Your task to perform on an android device: Look up the best selling books on Goodreads. Image 0: 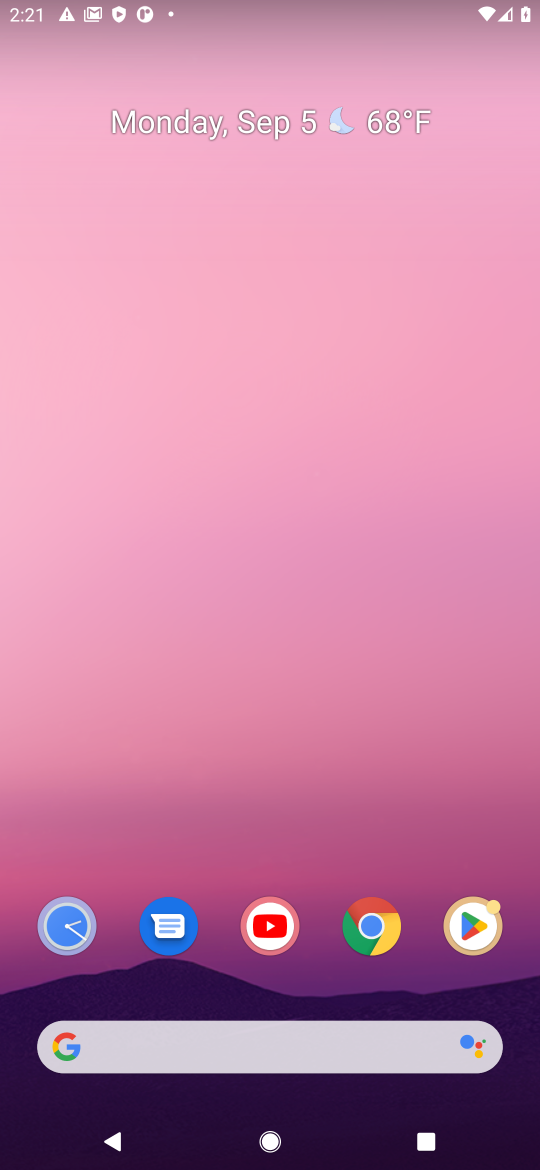
Step 0: click (381, 937)
Your task to perform on an android device: Look up the best selling books on Goodreads. Image 1: 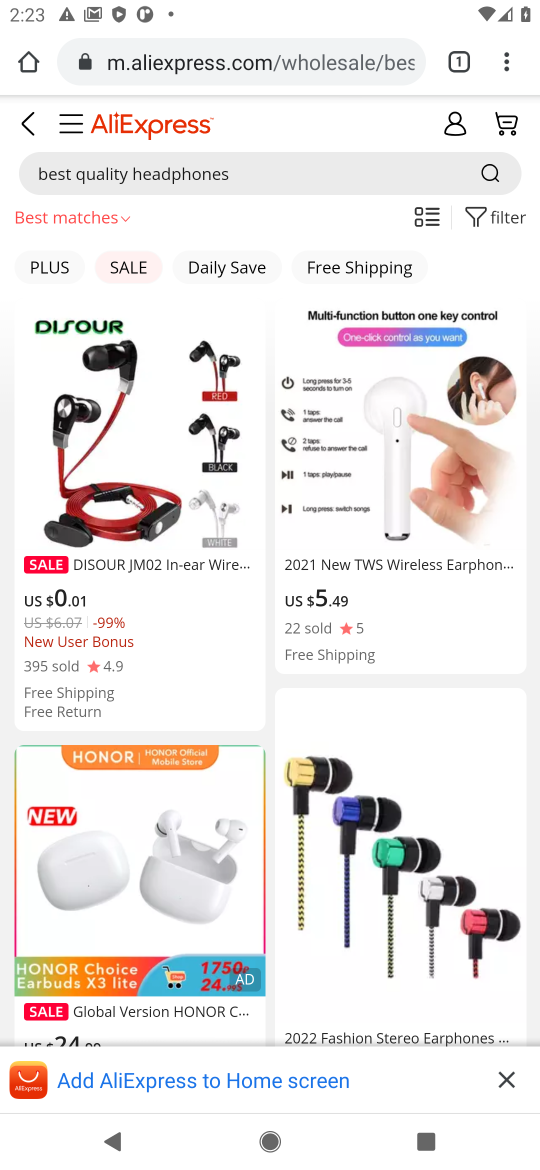
Step 1: press home button
Your task to perform on an android device: Look up the best selling books on Goodreads. Image 2: 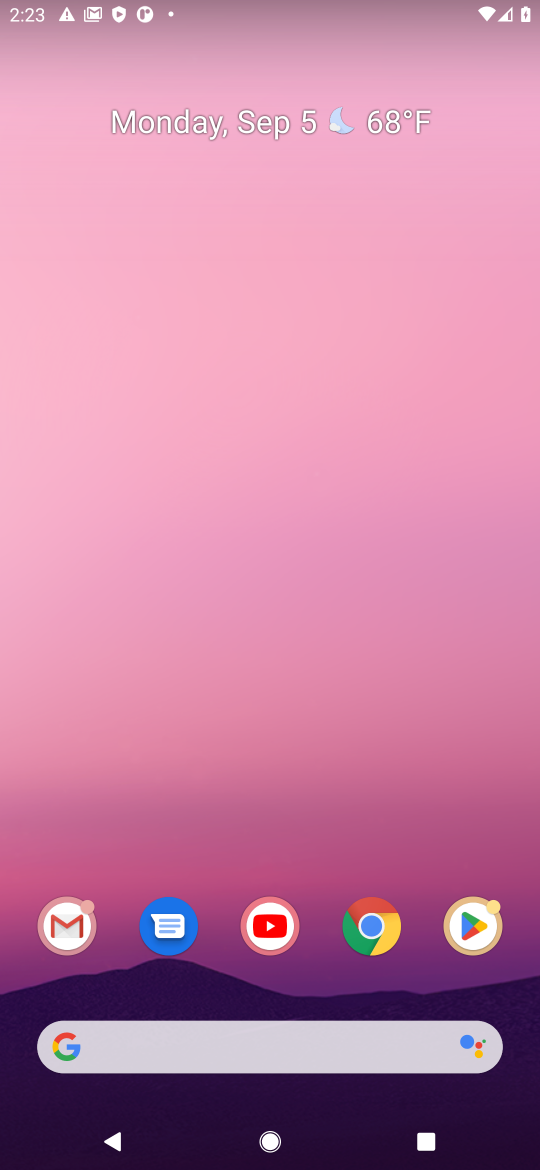
Step 2: click (370, 922)
Your task to perform on an android device: Look up the best selling books on Goodreads. Image 3: 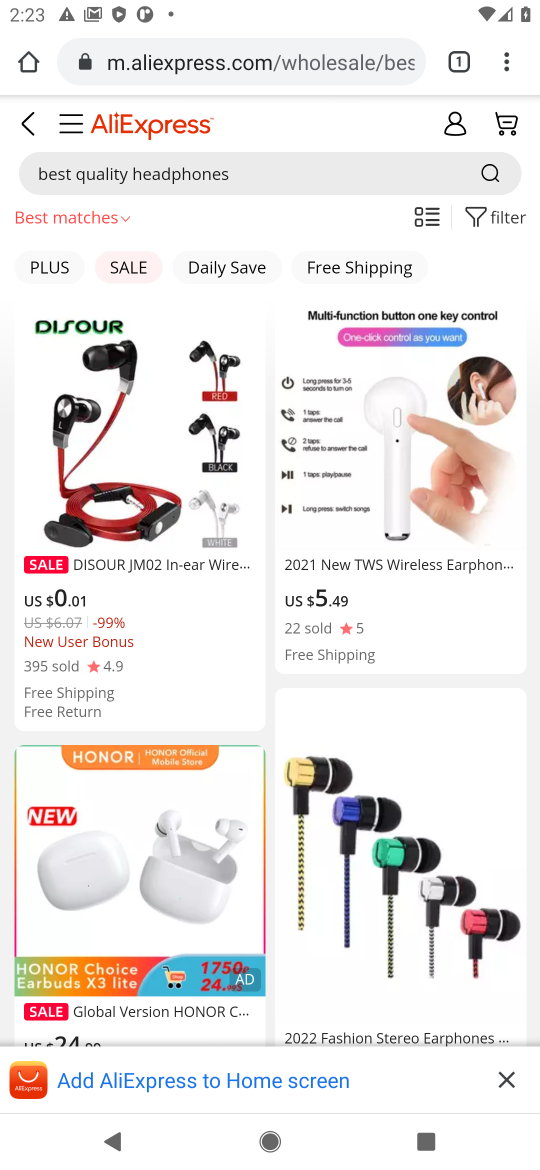
Step 3: click (281, 72)
Your task to perform on an android device: Look up the best selling books on Goodreads. Image 4: 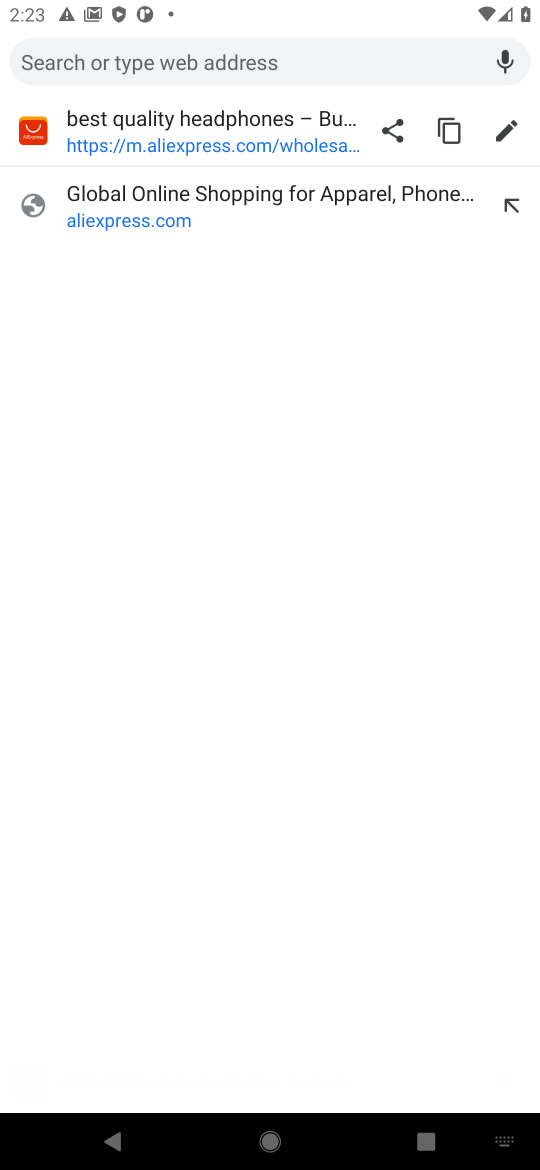
Step 4: type "goodreads"
Your task to perform on an android device: Look up the best selling books on Goodreads. Image 5: 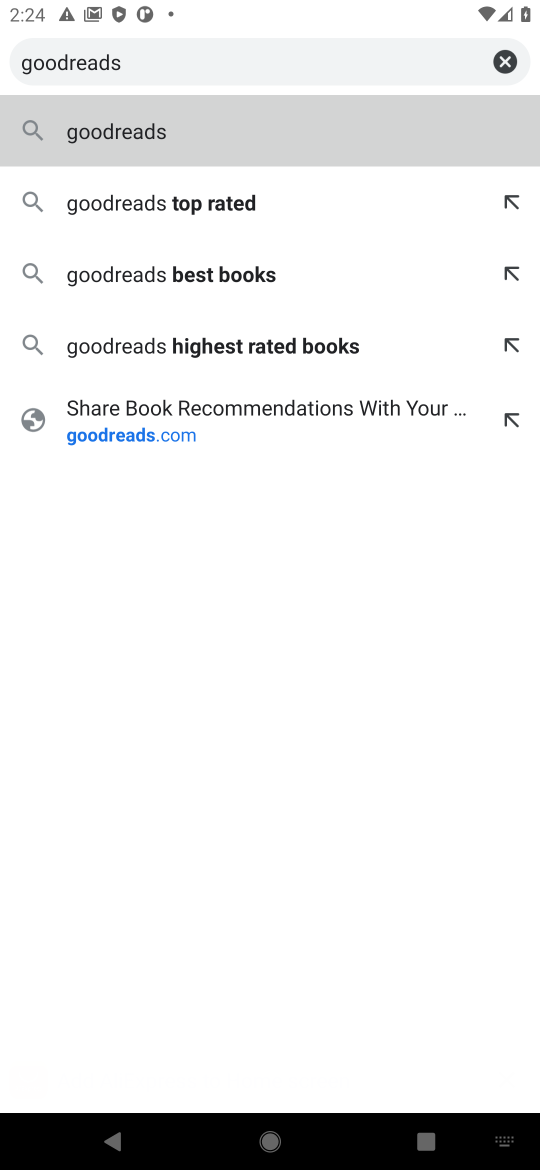
Step 5: task complete